Your task to perform on an android device: clear all cookies in the chrome app Image 0: 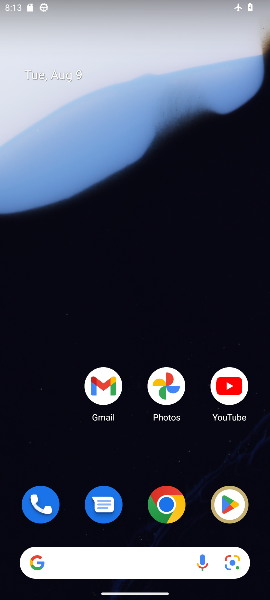
Step 0: click (153, 491)
Your task to perform on an android device: clear all cookies in the chrome app Image 1: 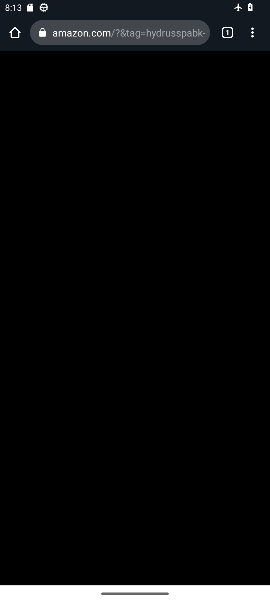
Step 1: drag from (252, 39) to (151, 427)
Your task to perform on an android device: clear all cookies in the chrome app Image 2: 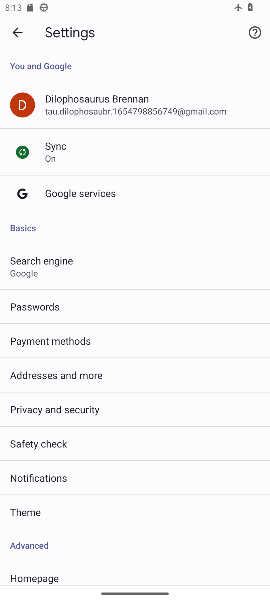
Step 2: drag from (76, 489) to (58, 137)
Your task to perform on an android device: clear all cookies in the chrome app Image 3: 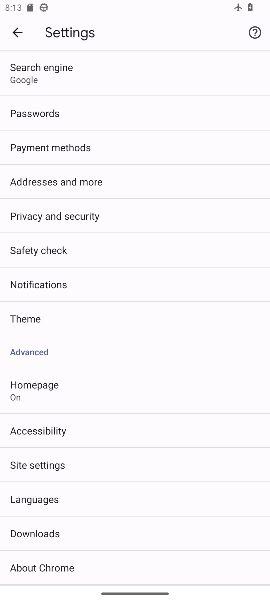
Step 3: click (67, 469)
Your task to perform on an android device: clear all cookies in the chrome app Image 4: 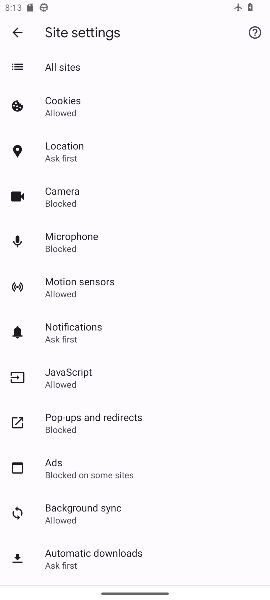
Step 4: click (68, 104)
Your task to perform on an android device: clear all cookies in the chrome app Image 5: 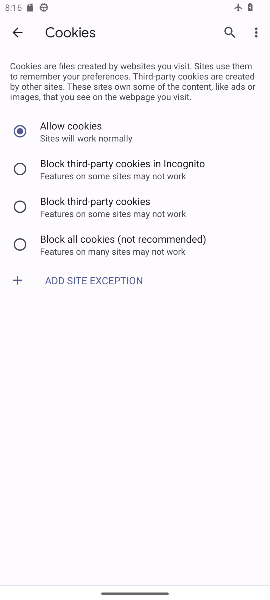
Step 5: click (13, 31)
Your task to perform on an android device: clear all cookies in the chrome app Image 6: 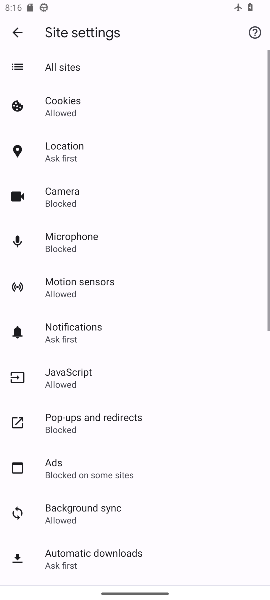
Step 6: click (13, 31)
Your task to perform on an android device: clear all cookies in the chrome app Image 7: 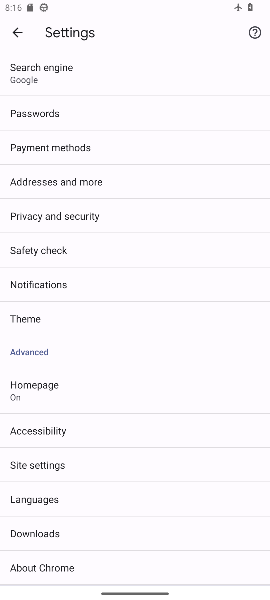
Step 7: drag from (45, 443) to (53, 378)
Your task to perform on an android device: clear all cookies in the chrome app Image 8: 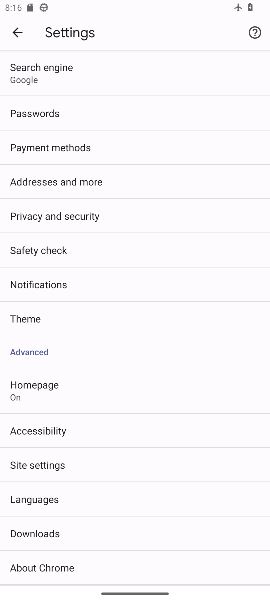
Step 8: click (94, 224)
Your task to perform on an android device: clear all cookies in the chrome app Image 9: 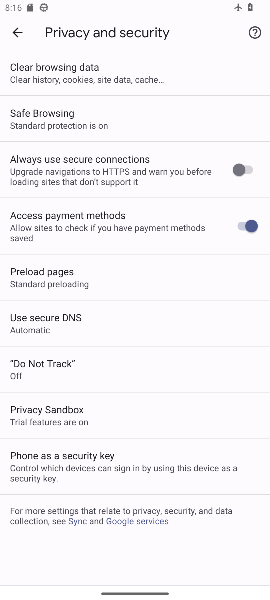
Step 9: click (94, 68)
Your task to perform on an android device: clear all cookies in the chrome app Image 10: 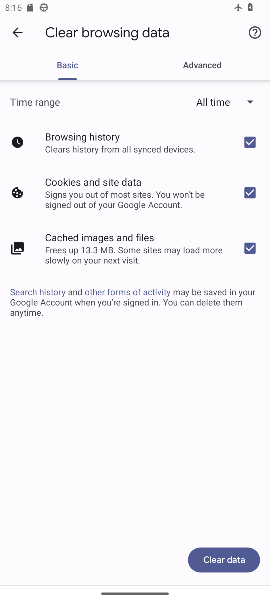
Step 10: click (208, 571)
Your task to perform on an android device: clear all cookies in the chrome app Image 11: 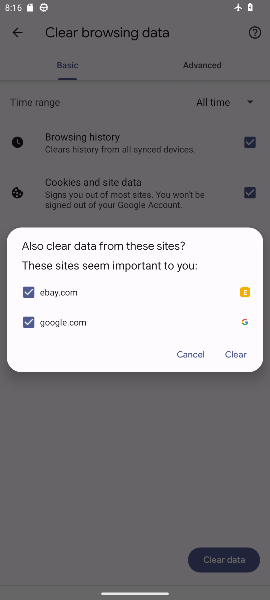
Step 11: click (225, 344)
Your task to perform on an android device: clear all cookies in the chrome app Image 12: 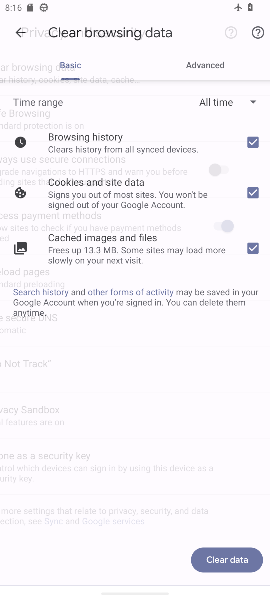
Step 12: task complete